Your task to perform on an android device: turn on the 24-hour format for clock Image 0: 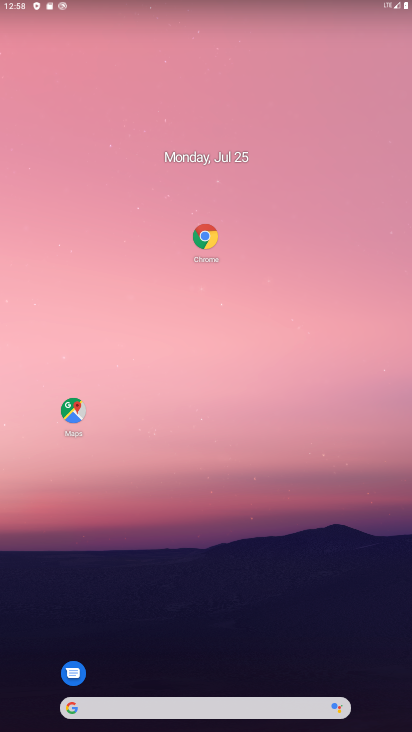
Step 0: drag from (237, 680) to (266, 114)
Your task to perform on an android device: turn on the 24-hour format for clock Image 1: 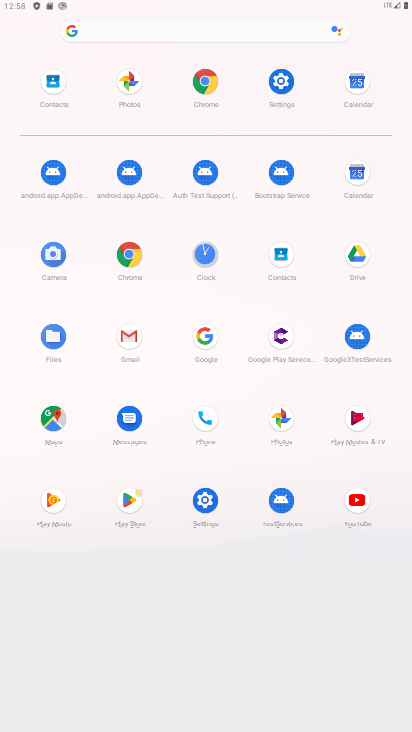
Step 1: click (205, 255)
Your task to perform on an android device: turn on the 24-hour format for clock Image 2: 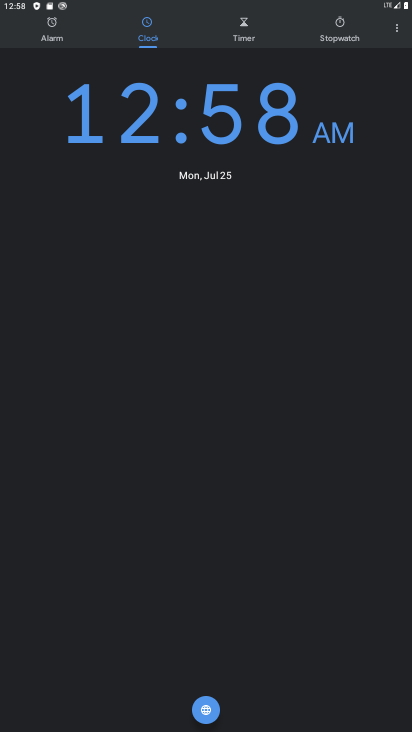
Step 2: click (395, 33)
Your task to perform on an android device: turn on the 24-hour format for clock Image 3: 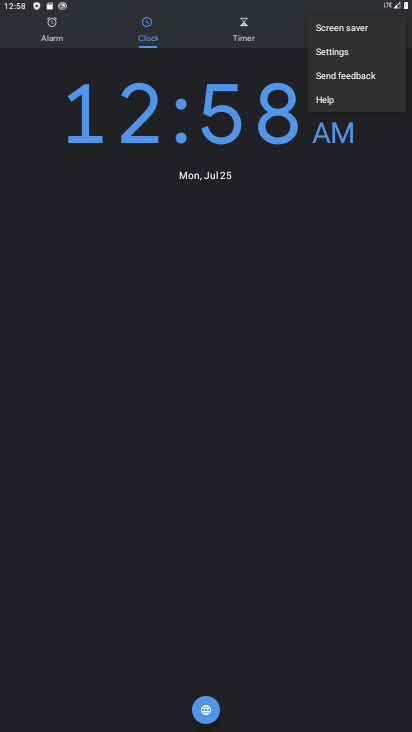
Step 3: click (352, 58)
Your task to perform on an android device: turn on the 24-hour format for clock Image 4: 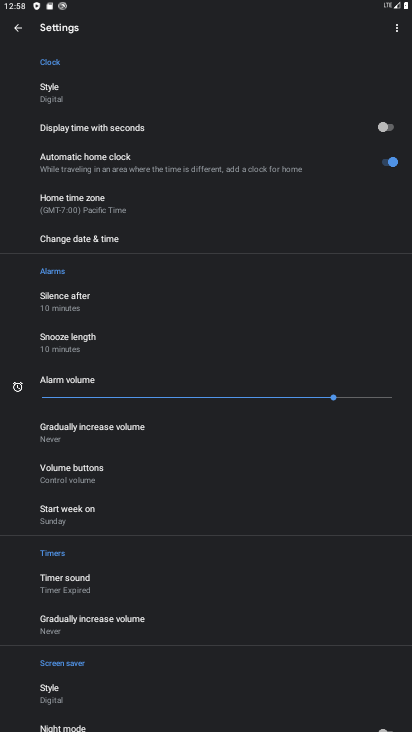
Step 4: click (131, 232)
Your task to perform on an android device: turn on the 24-hour format for clock Image 5: 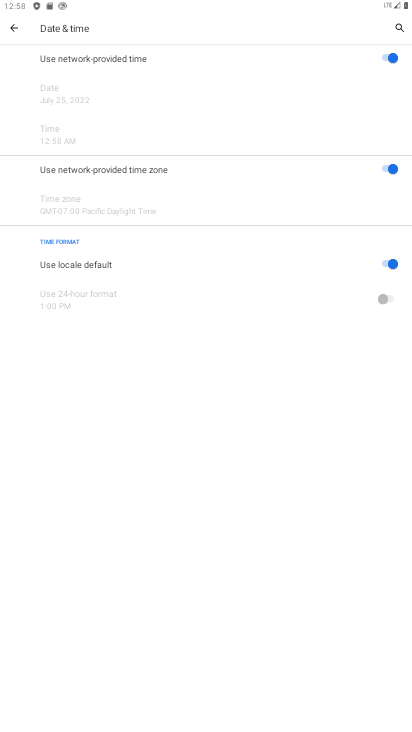
Step 5: click (385, 258)
Your task to perform on an android device: turn on the 24-hour format for clock Image 6: 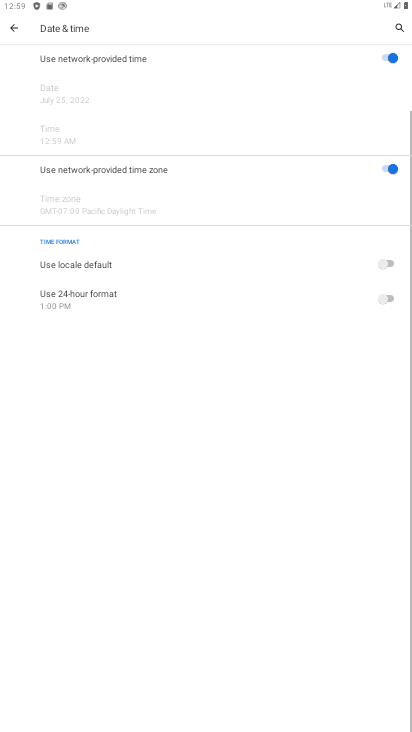
Step 6: click (390, 297)
Your task to perform on an android device: turn on the 24-hour format for clock Image 7: 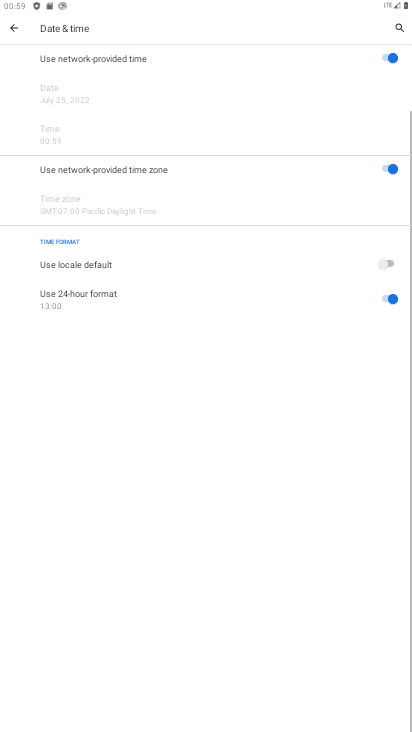
Step 7: task complete